Your task to perform on an android device: visit the assistant section in the google photos Image 0: 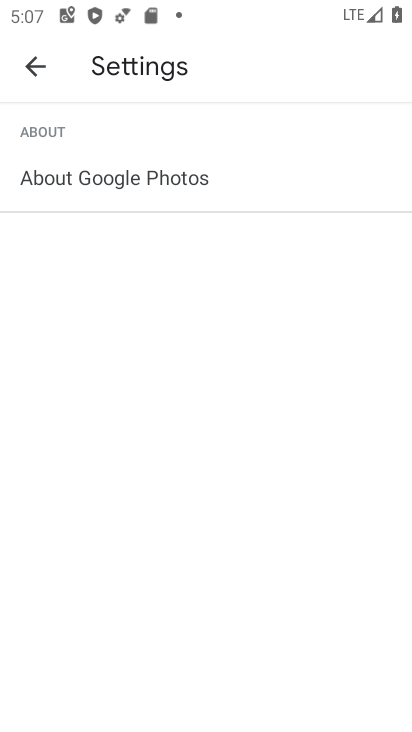
Step 0: press home button
Your task to perform on an android device: visit the assistant section in the google photos Image 1: 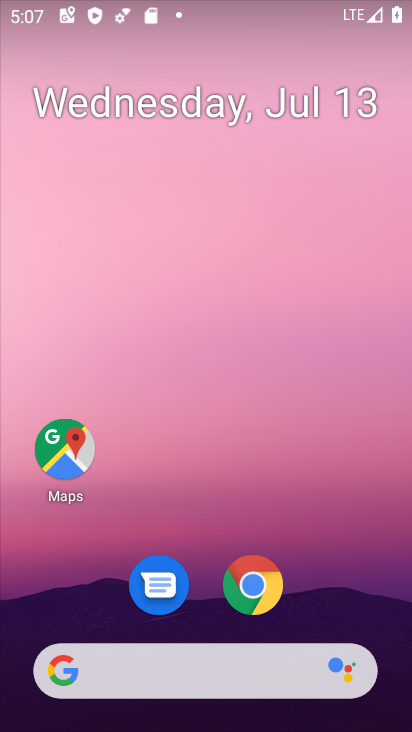
Step 1: drag from (304, 601) to (254, 91)
Your task to perform on an android device: visit the assistant section in the google photos Image 2: 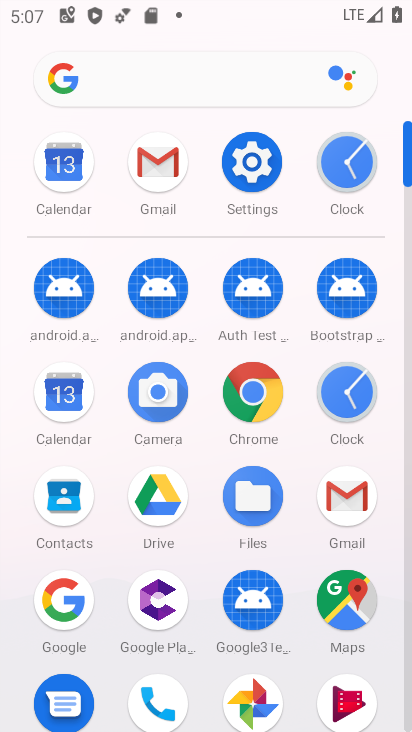
Step 2: drag from (194, 401) to (195, 173)
Your task to perform on an android device: visit the assistant section in the google photos Image 3: 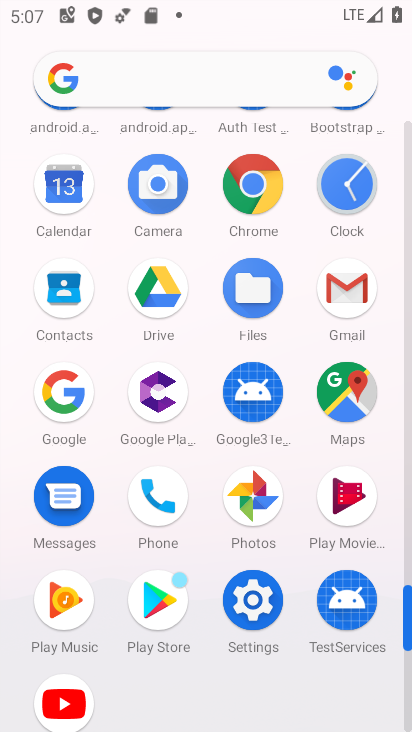
Step 3: click (253, 489)
Your task to perform on an android device: visit the assistant section in the google photos Image 4: 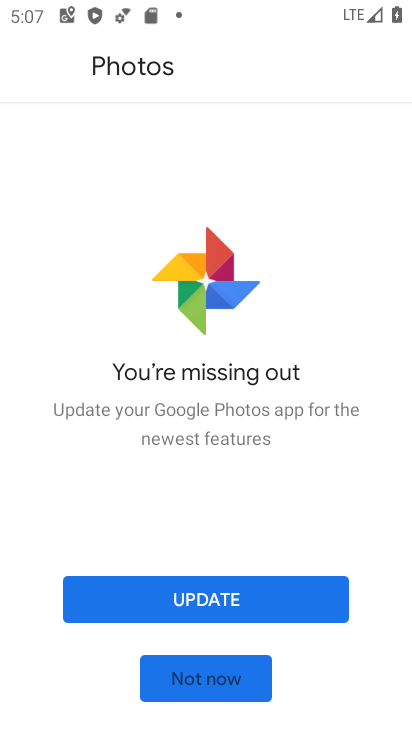
Step 4: click (247, 675)
Your task to perform on an android device: visit the assistant section in the google photos Image 5: 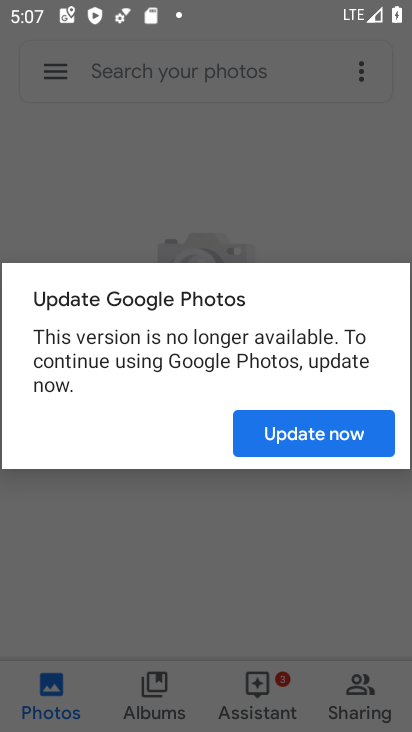
Step 5: click (315, 427)
Your task to perform on an android device: visit the assistant section in the google photos Image 6: 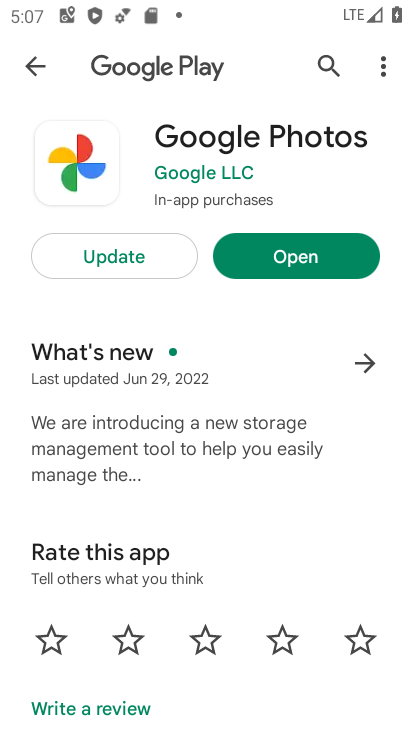
Step 6: click (316, 256)
Your task to perform on an android device: visit the assistant section in the google photos Image 7: 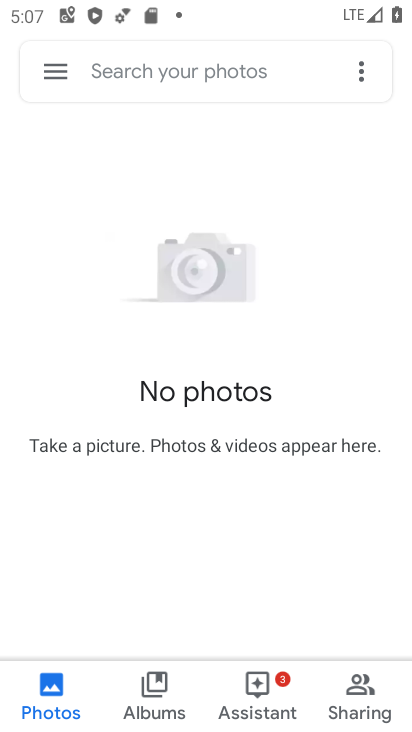
Step 7: click (270, 697)
Your task to perform on an android device: visit the assistant section in the google photos Image 8: 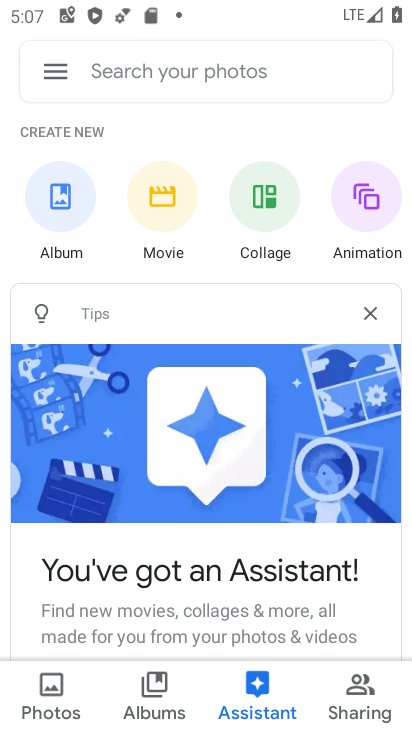
Step 8: task complete